Your task to perform on an android device: Go to privacy settings Image 0: 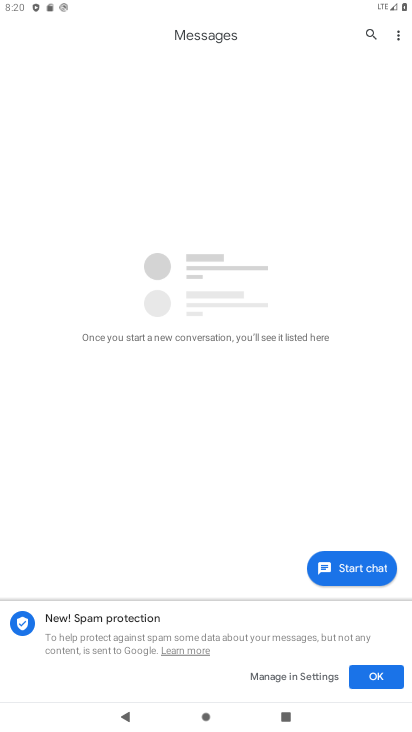
Step 0: press home button
Your task to perform on an android device: Go to privacy settings Image 1: 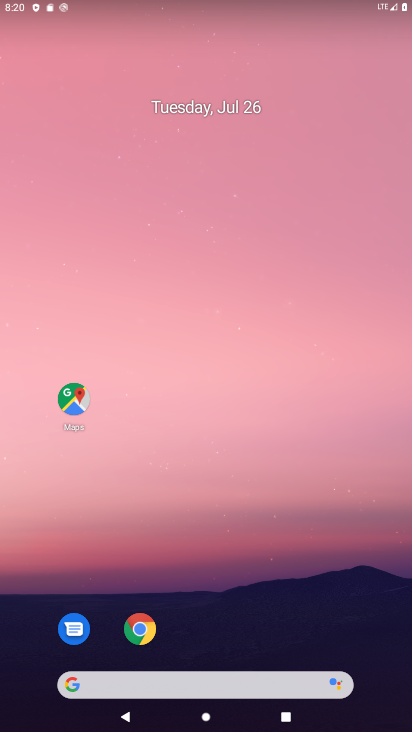
Step 1: drag from (204, 636) to (280, 60)
Your task to perform on an android device: Go to privacy settings Image 2: 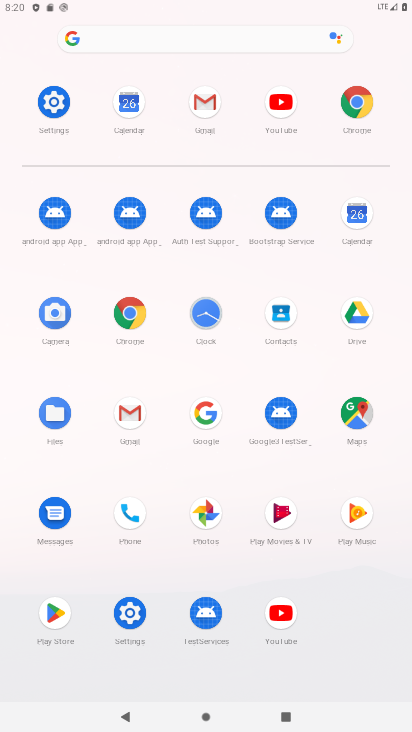
Step 2: click (121, 629)
Your task to perform on an android device: Go to privacy settings Image 3: 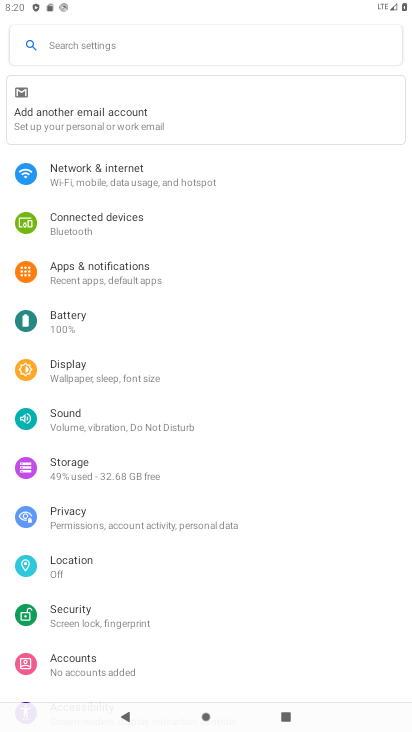
Step 3: click (76, 514)
Your task to perform on an android device: Go to privacy settings Image 4: 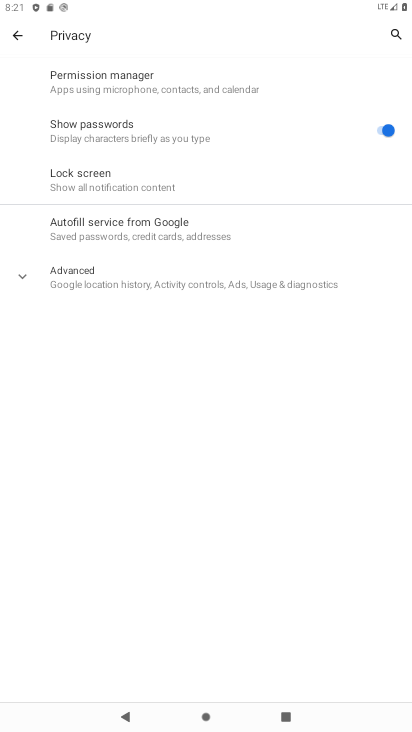
Step 4: click (85, 263)
Your task to perform on an android device: Go to privacy settings Image 5: 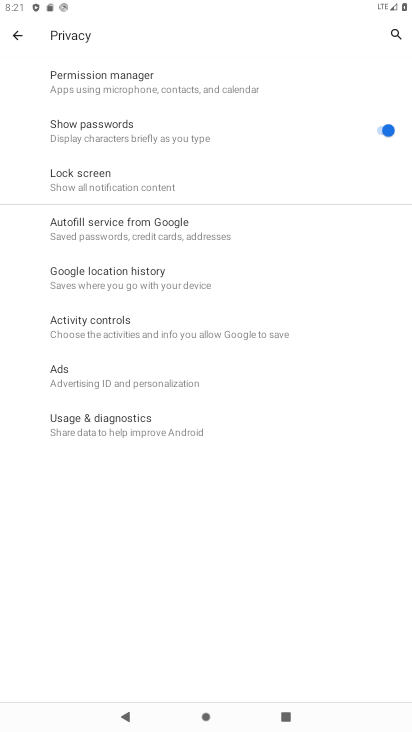
Step 5: click (85, 263)
Your task to perform on an android device: Go to privacy settings Image 6: 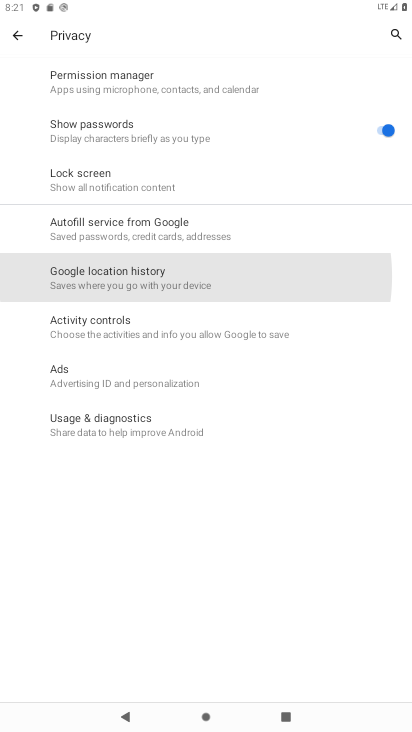
Step 6: click (85, 263)
Your task to perform on an android device: Go to privacy settings Image 7: 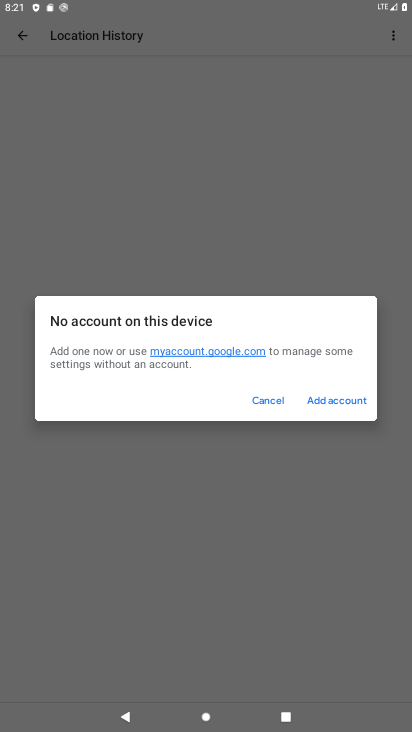
Step 7: click (261, 395)
Your task to perform on an android device: Go to privacy settings Image 8: 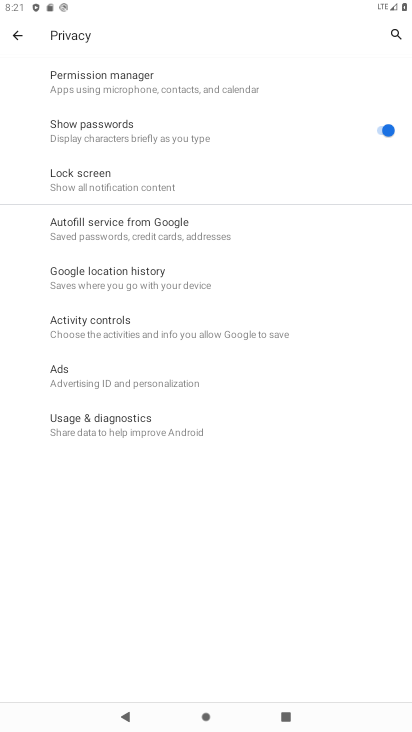
Step 8: task complete